Your task to perform on an android device: turn off wifi Image 0: 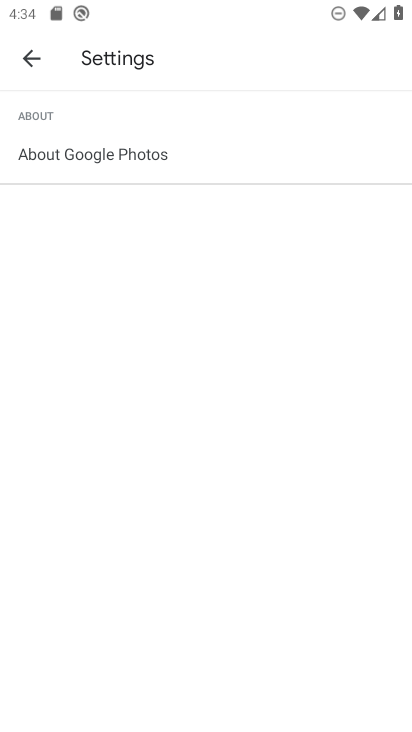
Step 0: press home button
Your task to perform on an android device: turn off wifi Image 1: 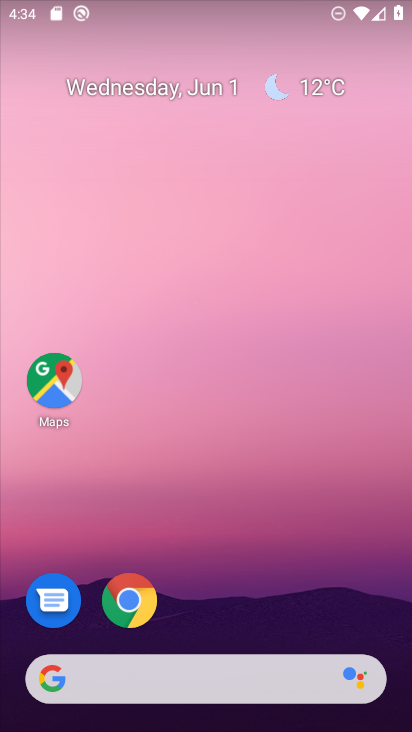
Step 1: drag from (407, 636) to (325, 145)
Your task to perform on an android device: turn off wifi Image 2: 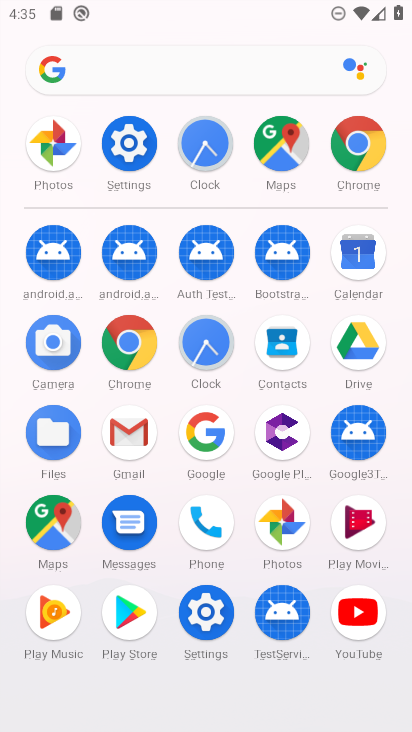
Step 2: click (207, 610)
Your task to perform on an android device: turn off wifi Image 3: 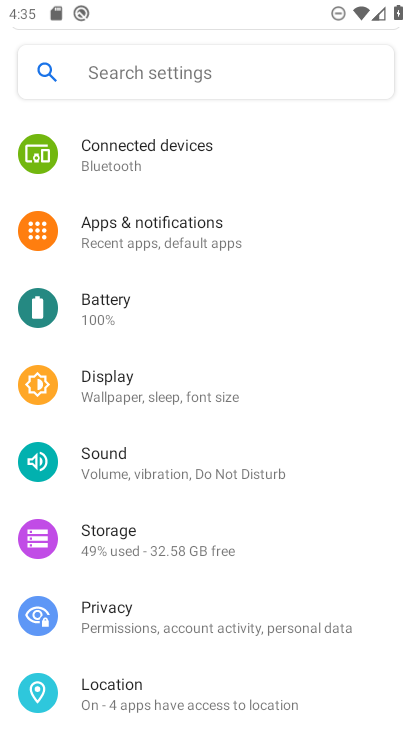
Step 3: drag from (328, 171) to (336, 447)
Your task to perform on an android device: turn off wifi Image 4: 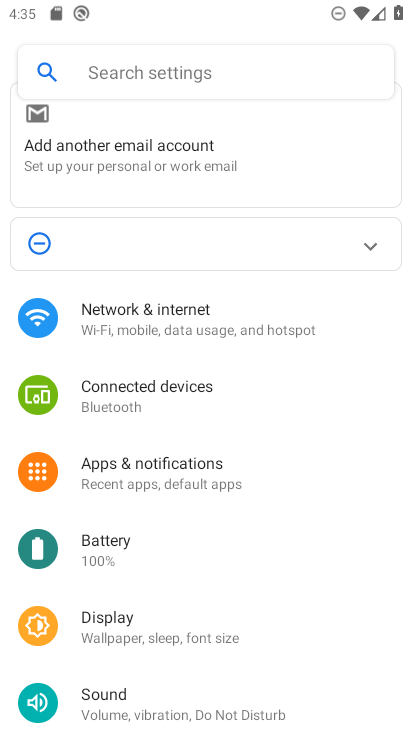
Step 4: click (134, 322)
Your task to perform on an android device: turn off wifi Image 5: 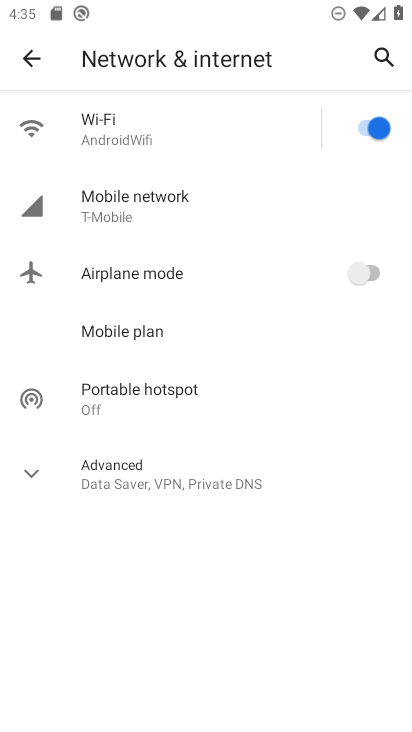
Step 5: click (361, 130)
Your task to perform on an android device: turn off wifi Image 6: 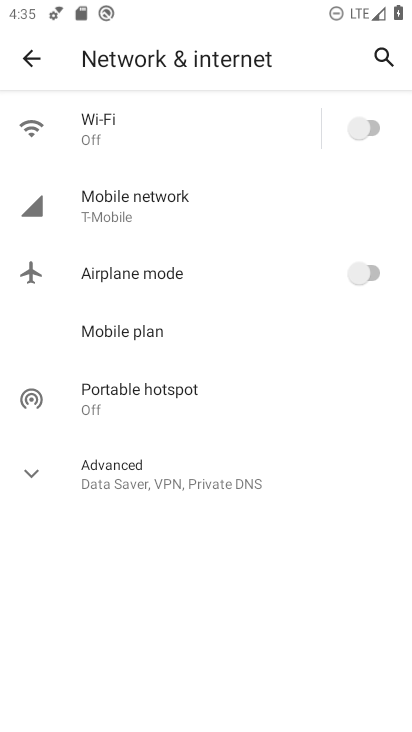
Step 6: task complete